Your task to perform on an android device: Is it going to rain this weekend? Image 0: 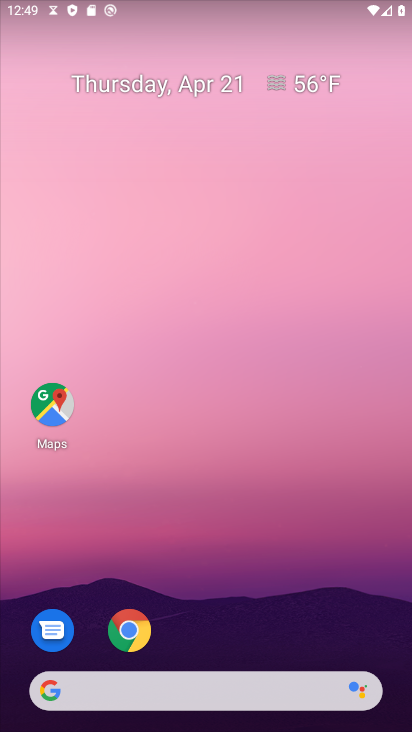
Step 0: drag from (190, 649) to (243, 88)
Your task to perform on an android device: Is it going to rain this weekend? Image 1: 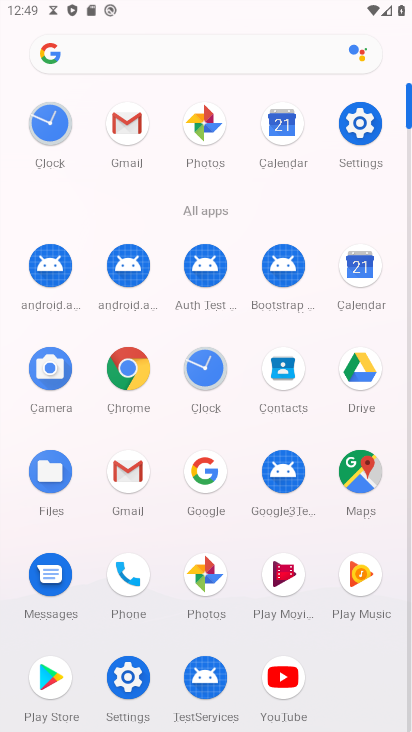
Step 1: click (203, 483)
Your task to perform on an android device: Is it going to rain this weekend? Image 2: 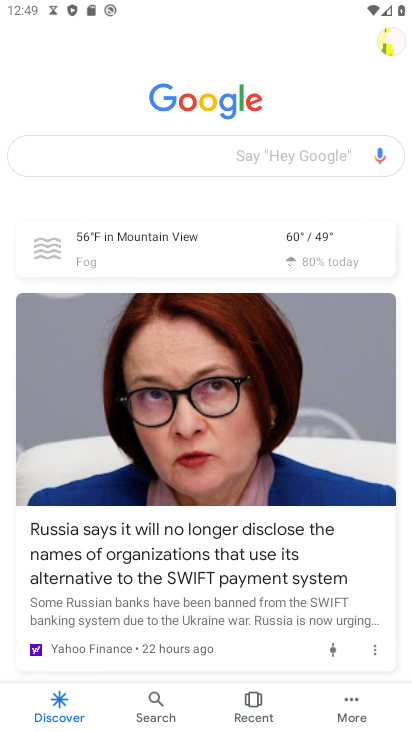
Step 2: click (102, 239)
Your task to perform on an android device: Is it going to rain this weekend? Image 3: 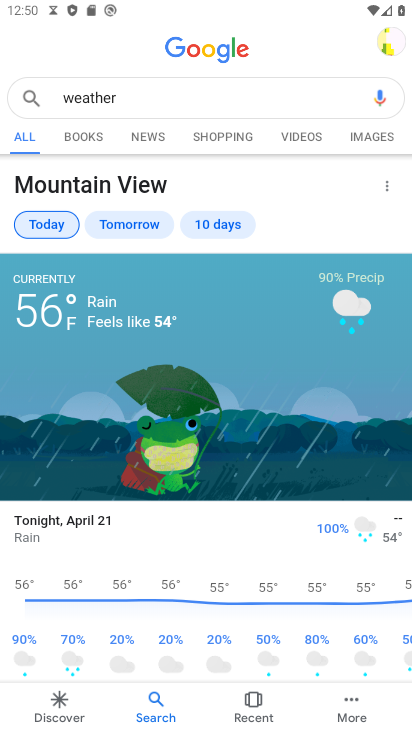
Step 3: click (180, 109)
Your task to perform on an android device: Is it going to rain this weekend? Image 4: 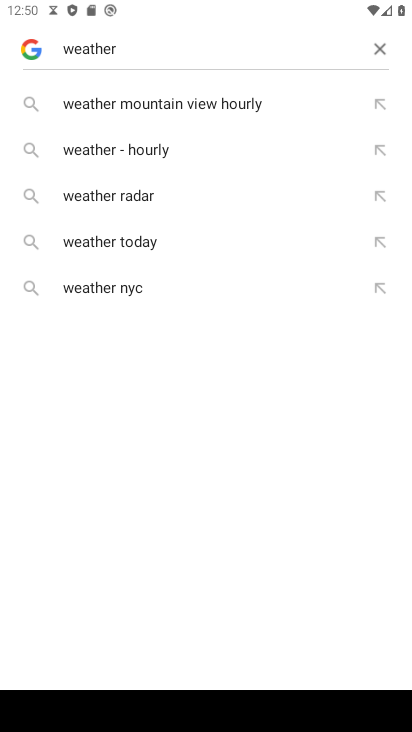
Step 4: type " weekend"
Your task to perform on an android device: Is it going to rain this weekend? Image 5: 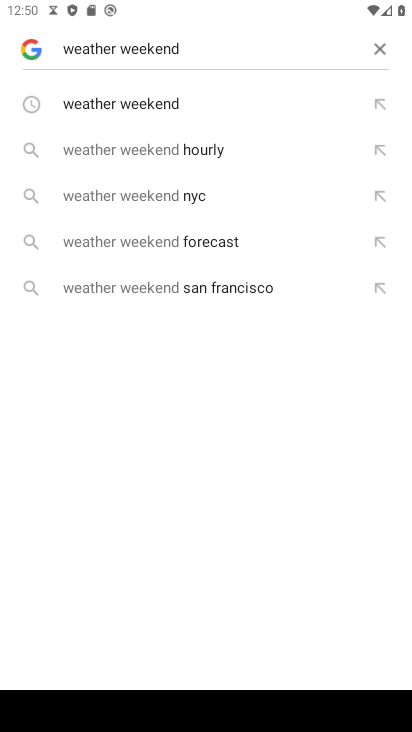
Step 5: click (95, 109)
Your task to perform on an android device: Is it going to rain this weekend? Image 6: 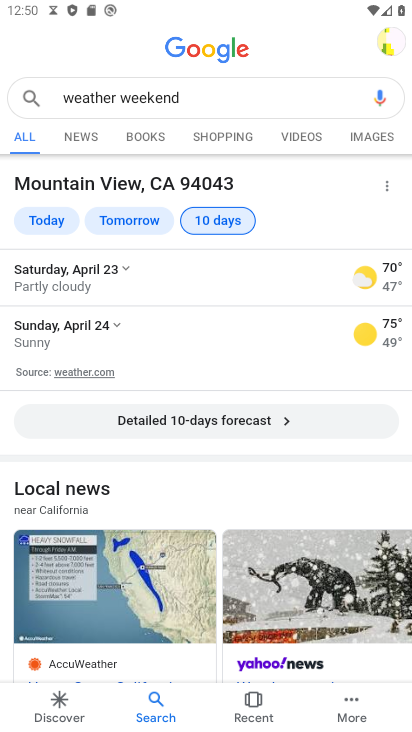
Step 6: click (257, 416)
Your task to perform on an android device: Is it going to rain this weekend? Image 7: 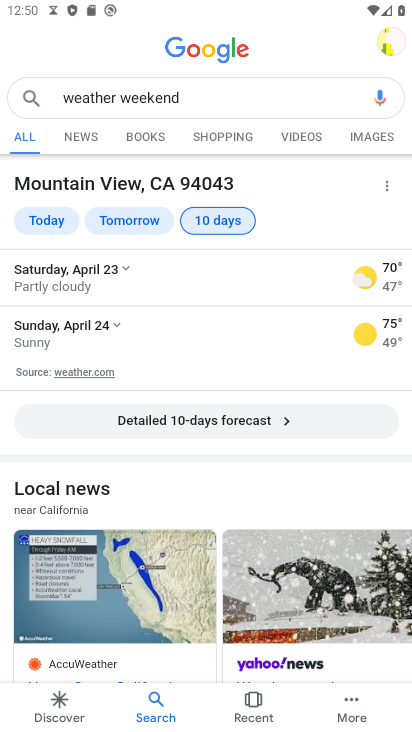
Step 7: task complete